Your task to perform on an android device: Go to Maps Image 0: 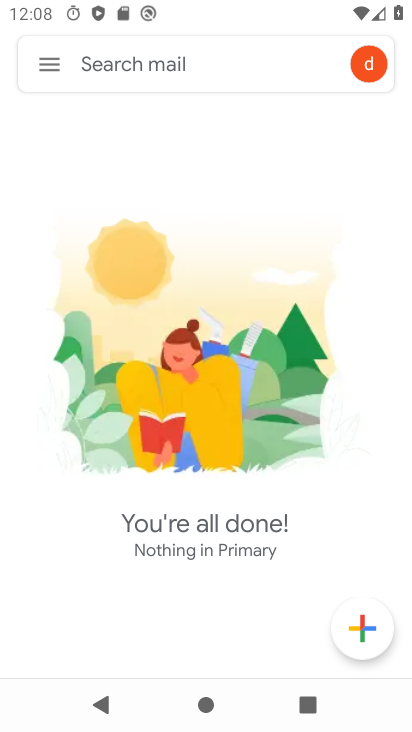
Step 0: press home button
Your task to perform on an android device: Go to Maps Image 1: 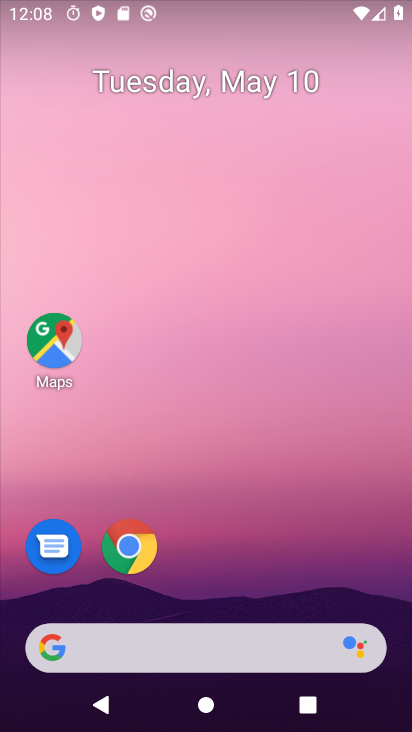
Step 1: click (56, 328)
Your task to perform on an android device: Go to Maps Image 2: 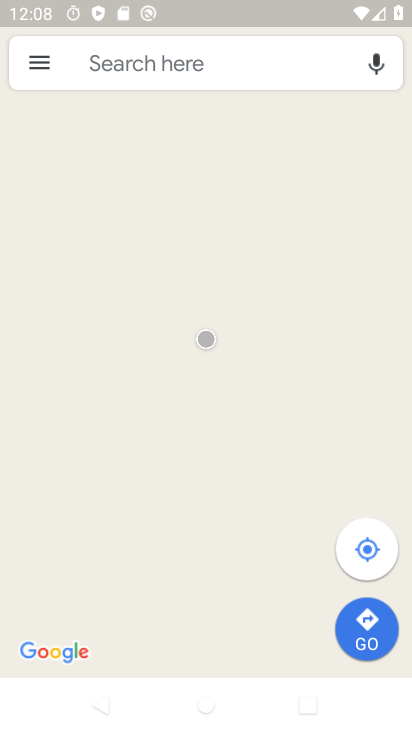
Step 2: task complete